Your task to perform on an android device: turn on airplane mode Image 0: 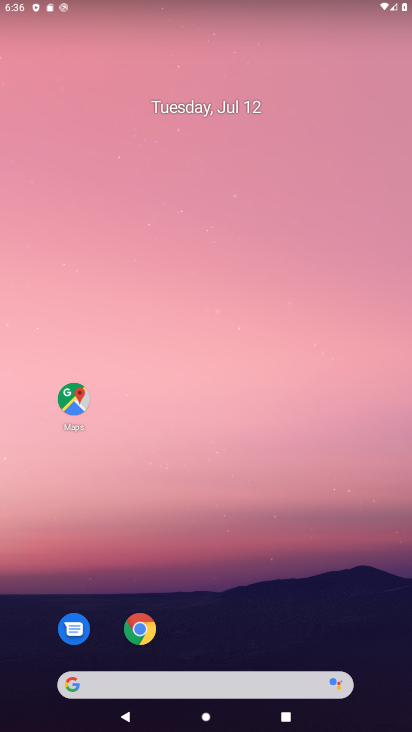
Step 0: drag from (228, 539) to (191, 35)
Your task to perform on an android device: turn on airplane mode Image 1: 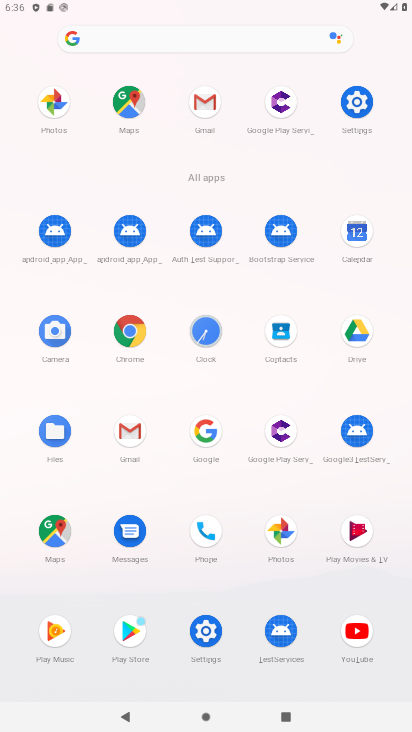
Step 1: click (356, 102)
Your task to perform on an android device: turn on airplane mode Image 2: 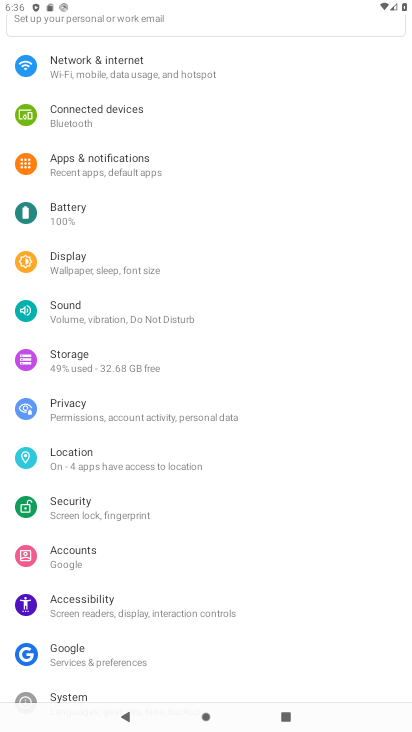
Step 2: click (104, 63)
Your task to perform on an android device: turn on airplane mode Image 3: 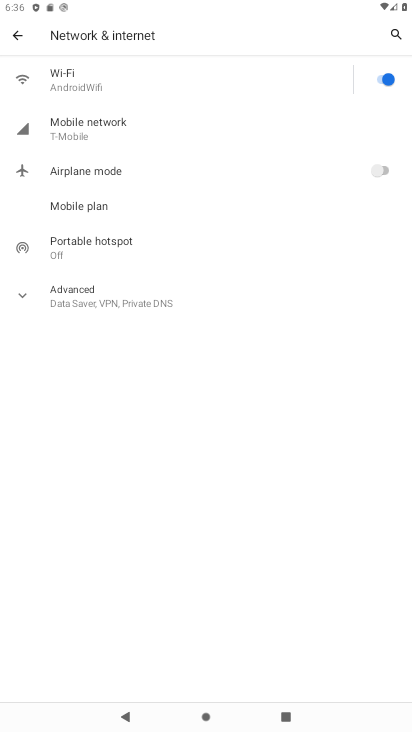
Step 3: click (383, 166)
Your task to perform on an android device: turn on airplane mode Image 4: 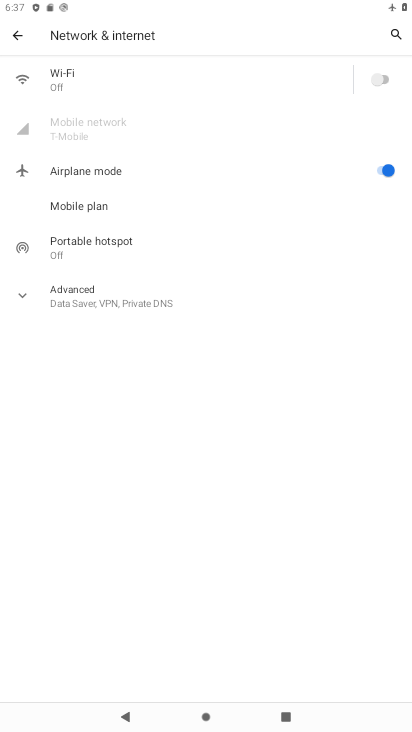
Step 4: task complete